Your task to perform on an android device: What's on my calendar today? Image 0: 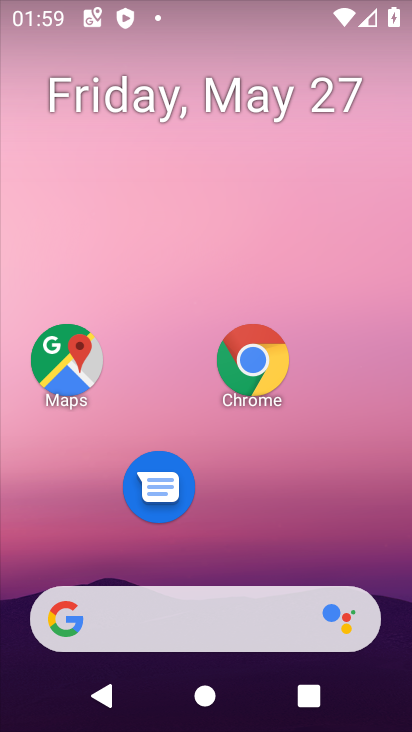
Step 0: drag from (256, 508) to (262, 80)
Your task to perform on an android device: What's on my calendar today? Image 1: 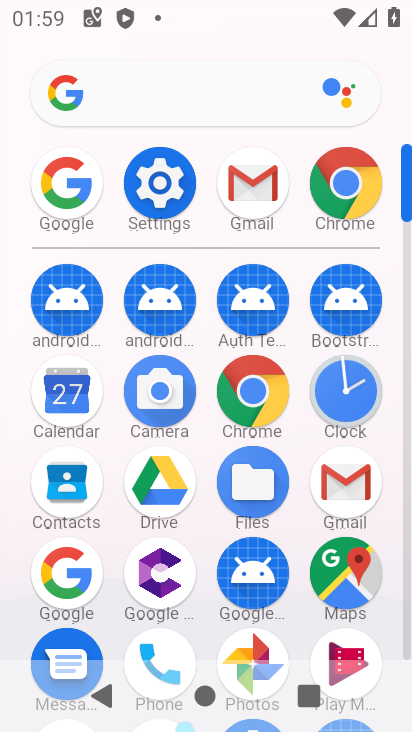
Step 1: click (70, 391)
Your task to perform on an android device: What's on my calendar today? Image 2: 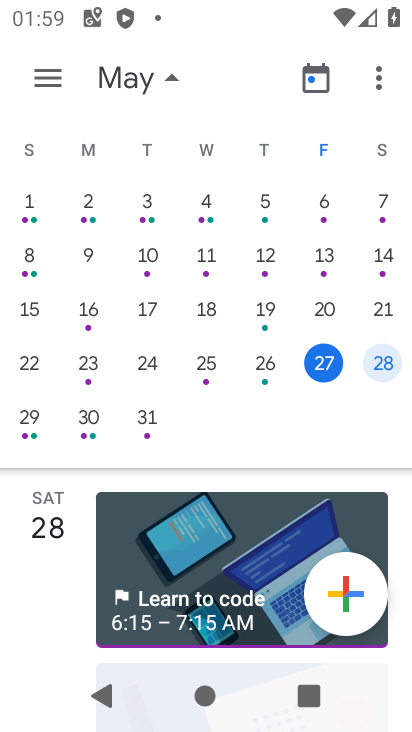
Step 2: click (318, 361)
Your task to perform on an android device: What's on my calendar today? Image 3: 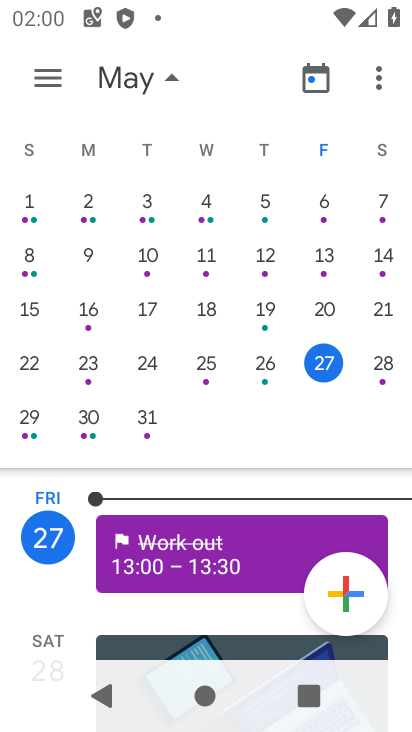
Step 3: task complete